Your task to perform on an android device: make emails show in primary in the gmail app Image 0: 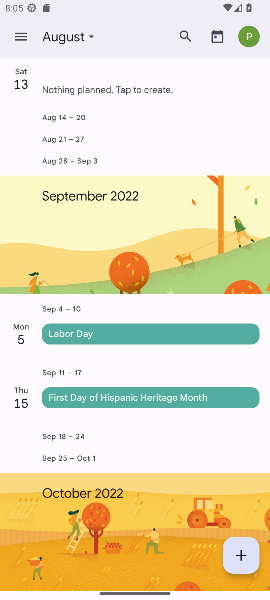
Step 0: press home button
Your task to perform on an android device: make emails show in primary in the gmail app Image 1: 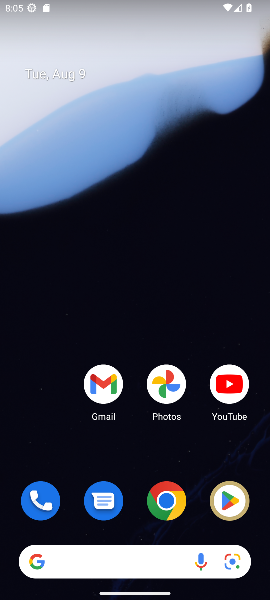
Step 1: click (106, 390)
Your task to perform on an android device: make emails show in primary in the gmail app Image 2: 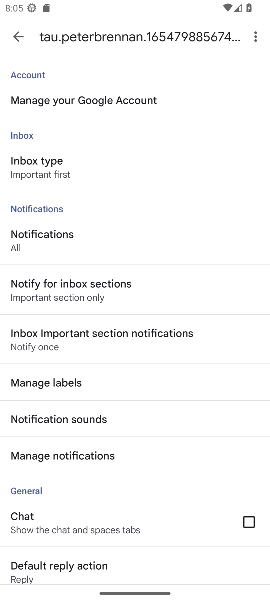
Step 2: click (41, 163)
Your task to perform on an android device: make emails show in primary in the gmail app Image 3: 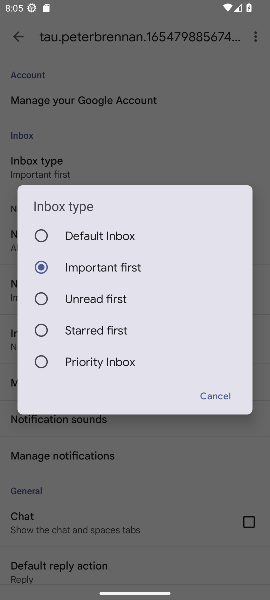
Step 3: click (68, 229)
Your task to perform on an android device: make emails show in primary in the gmail app Image 4: 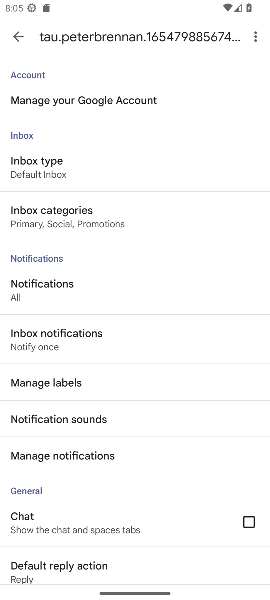
Step 4: task complete